Your task to perform on an android device: set default search engine in the chrome app Image 0: 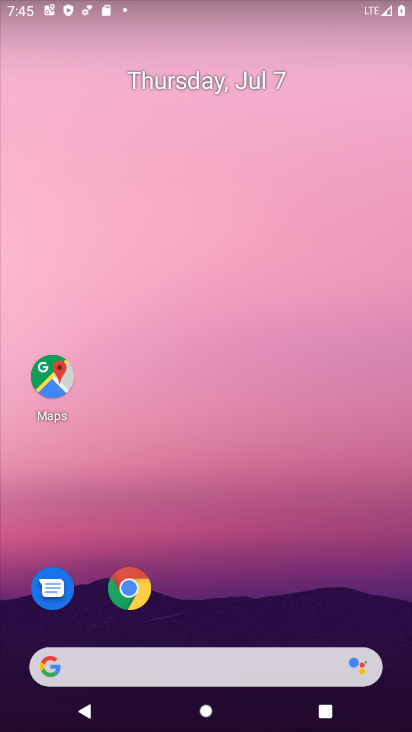
Step 0: click (131, 589)
Your task to perform on an android device: set default search engine in the chrome app Image 1: 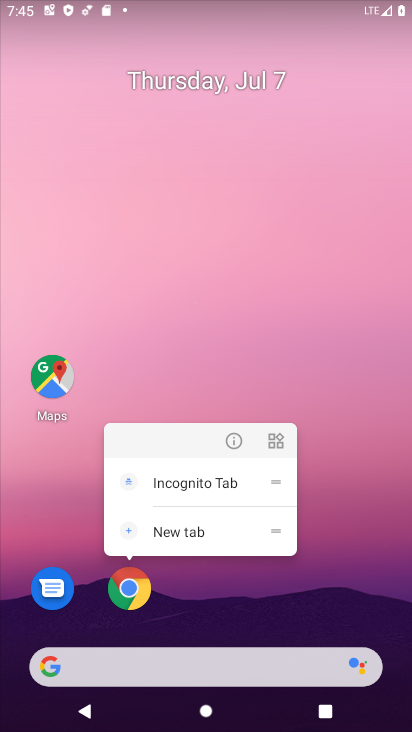
Step 1: click (325, 270)
Your task to perform on an android device: set default search engine in the chrome app Image 2: 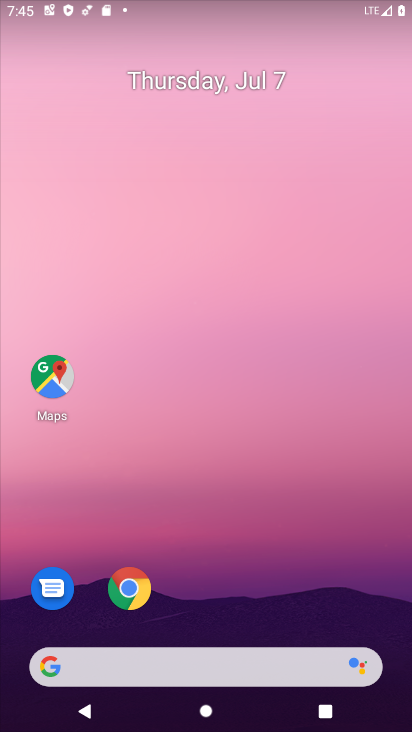
Step 2: drag from (234, 640) to (244, 68)
Your task to perform on an android device: set default search engine in the chrome app Image 3: 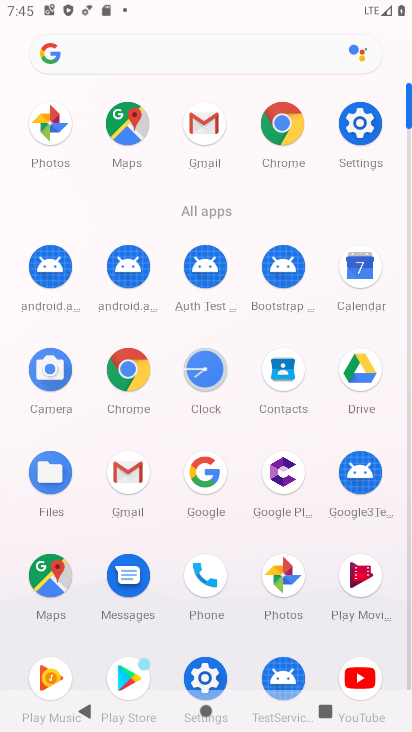
Step 3: click (293, 116)
Your task to perform on an android device: set default search engine in the chrome app Image 4: 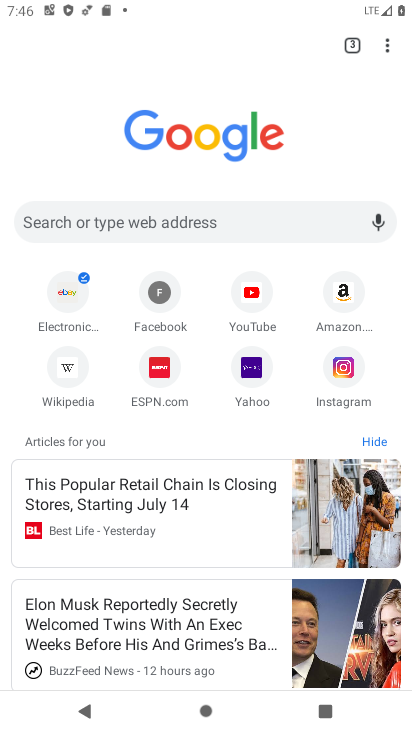
Step 4: click (392, 44)
Your task to perform on an android device: set default search engine in the chrome app Image 5: 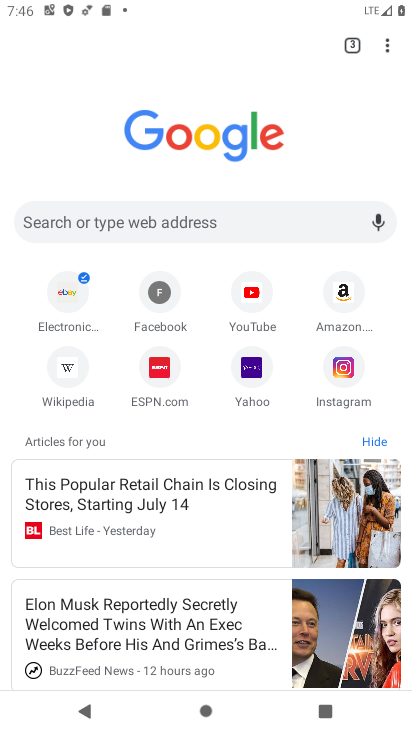
Step 5: click (392, 44)
Your task to perform on an android device: set default search engine in the chrome app Image 6: 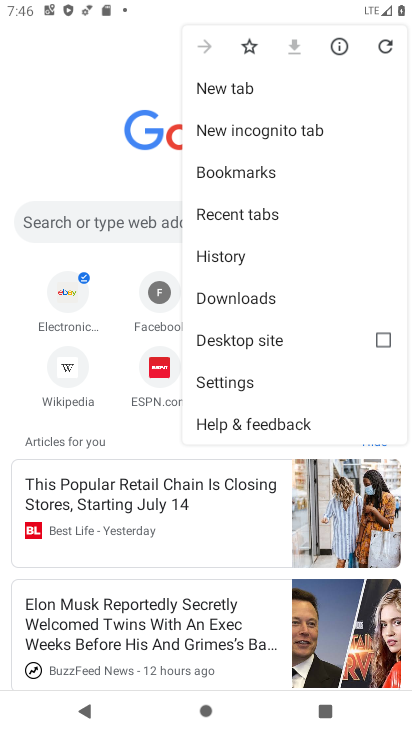
Step 6: click (238, 376)
Your task to perform on an android device: set default search engine in the chrome app Image 7: 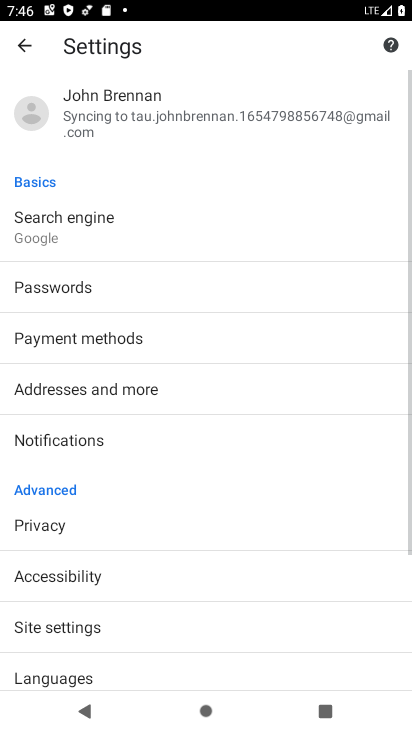
Step 7: click (77, 230)
Your task to perform on an android device: set default search engine in the chrome app Image 8: 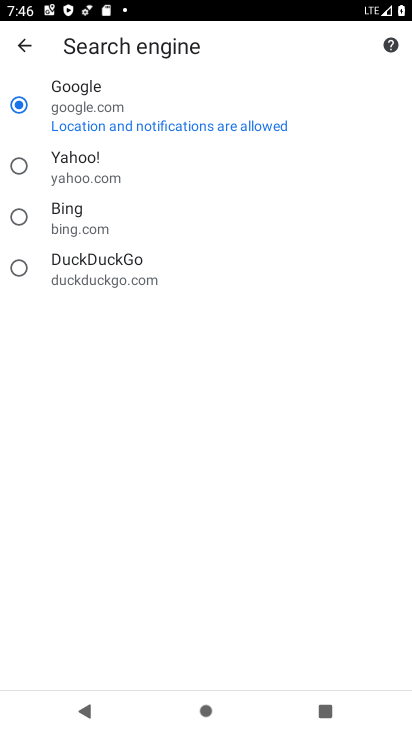
Step 8: click (69, 167)
Your task to perform on an android device: set default search engine in the chrome app Image 9: 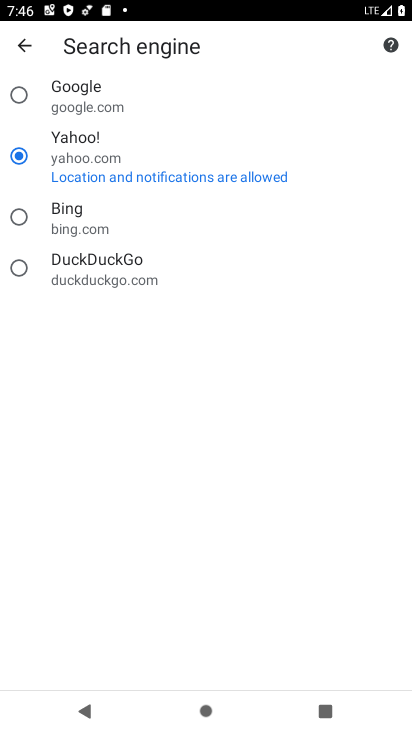
Step 9: task complete